Your task to perform on an android device: Open internet settings Image 0: 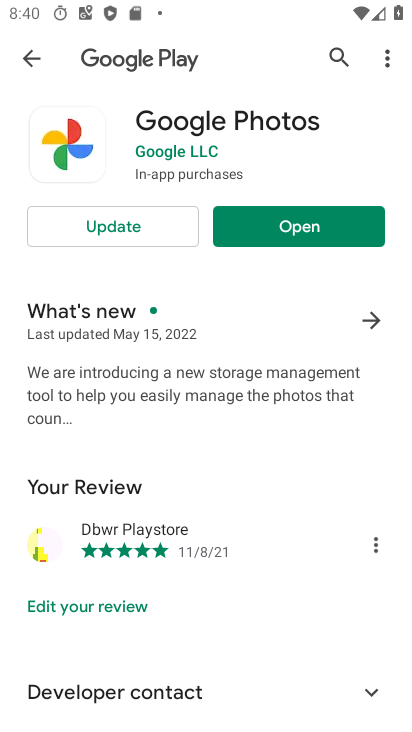
Step 0: press back button
Your task to perform on an android device: Open internet settings Image 1: 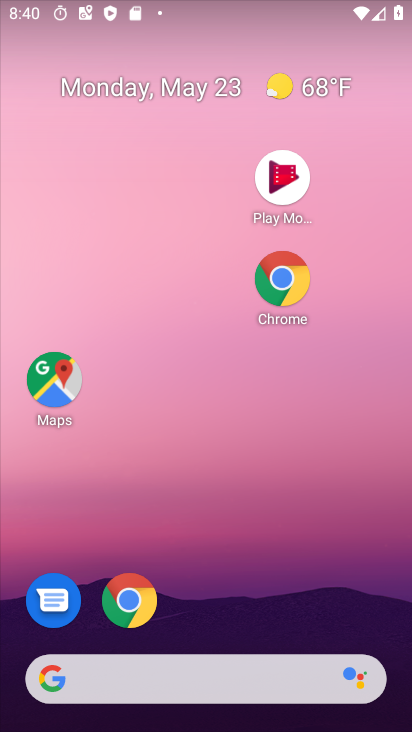
Step 1: drag from (336, 653) to (271, 118)
Your task to perform on an android device: Open internet settings Image 2: 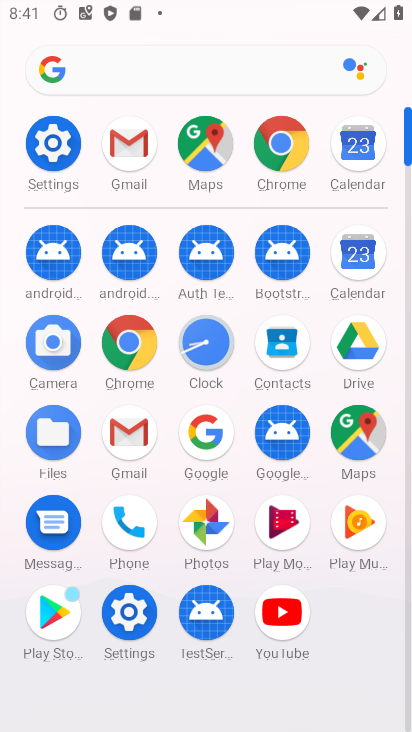
Step 2: click (278, 139)
Your task to perform on an android device: Open internet settings Image 3: 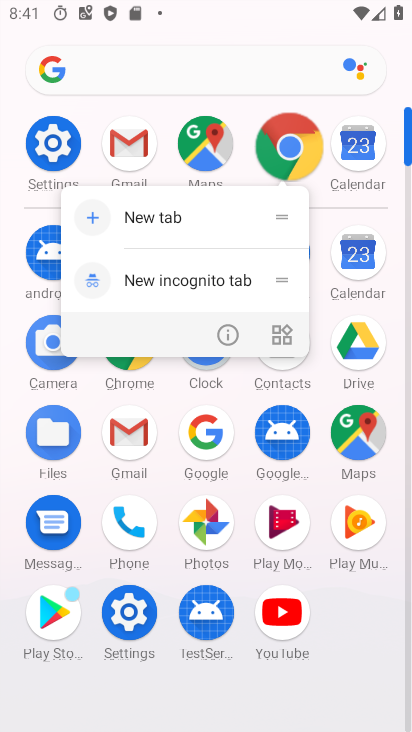
Step 3: click (285, 143)
Your task to perform on an android device: Open internet settings Image 4: 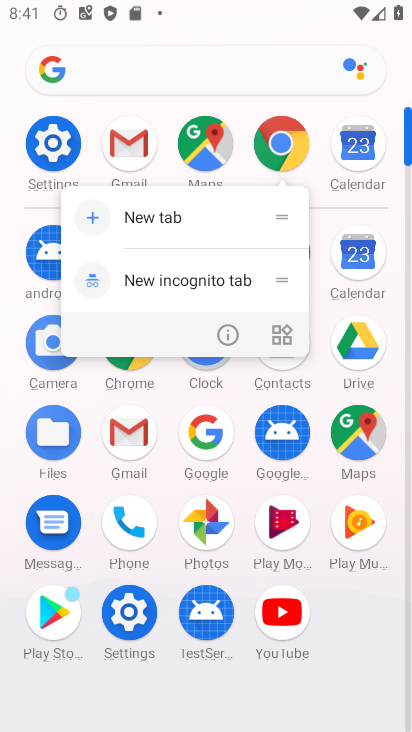
Step 4: click (285, 144)
Your task to perform on an android device: Open internet settings Image 5: 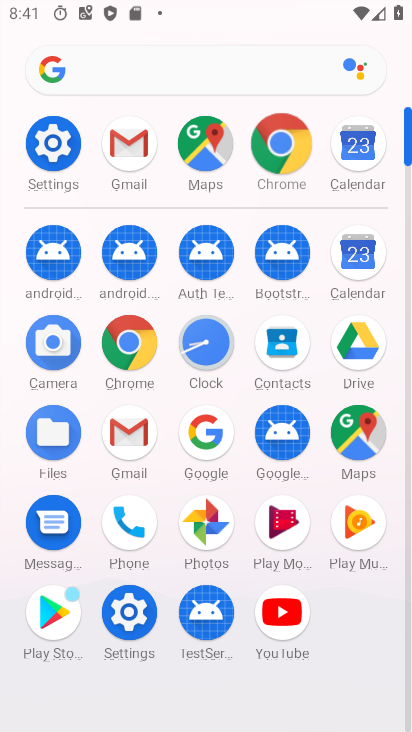
Step 5: click (285, 144)
Your task to perform on an android device: Open internet settings Image 6: 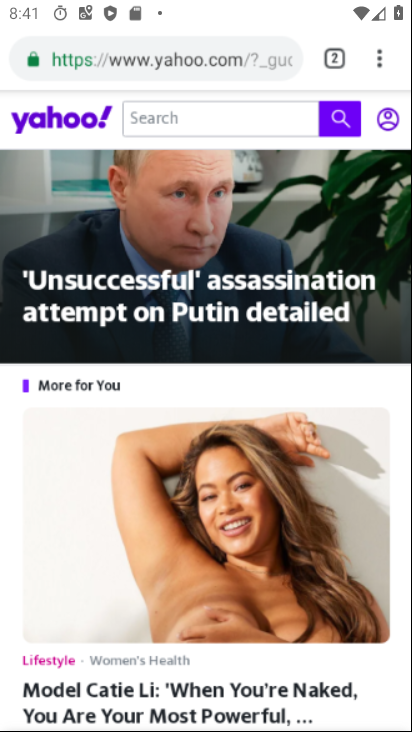
Step 6: click (292, 151)
Your task to perform on an android device: Open internet settings Image 7: 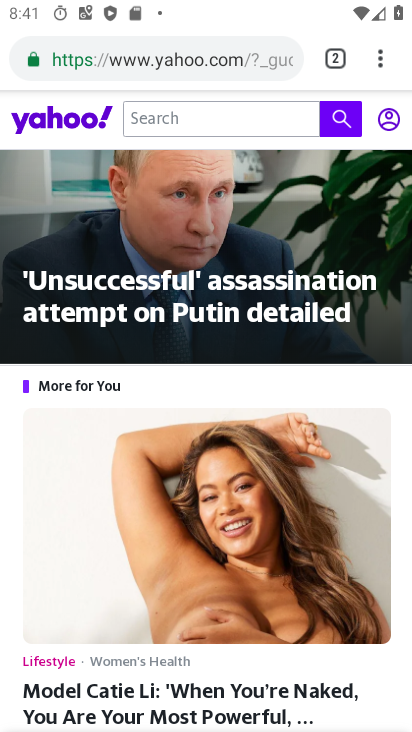
Step 7: click (384, 51)
Your task to perform on an android device: Open internet settings Image 8: 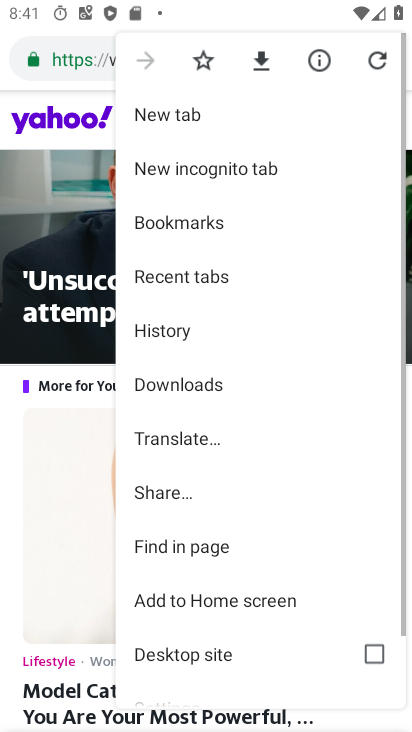
Step 8: drag from (378, 64) to (273, 328)
Your task to perform on an android device: Open internet settings Image 9: 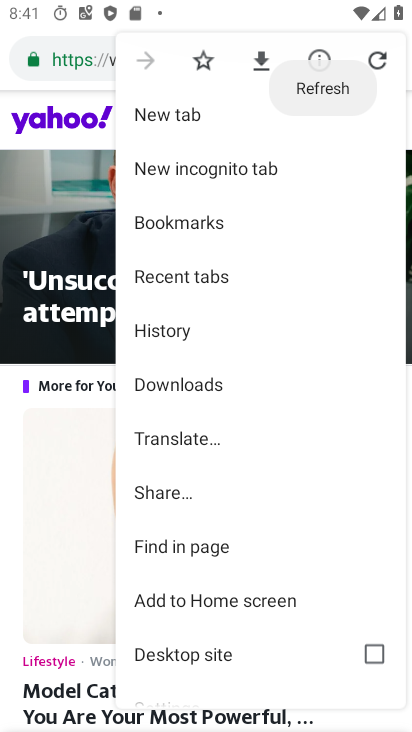
Step 9: press home button
Your task to perform on an android device: Open internet settings Image 10: 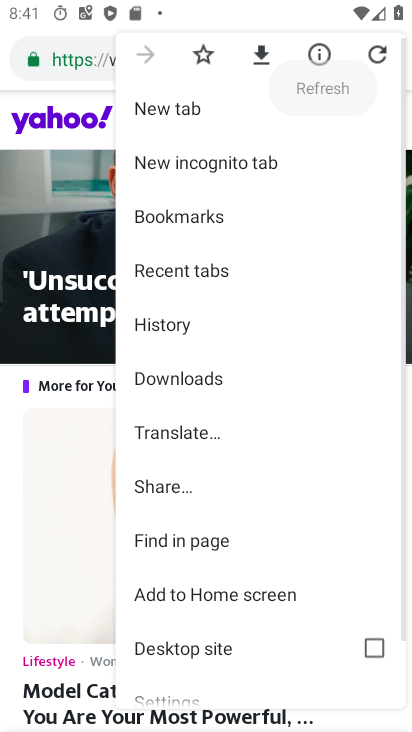
Step 10: press home button
Your task to perform on an android device: Open internet settings Image 11: 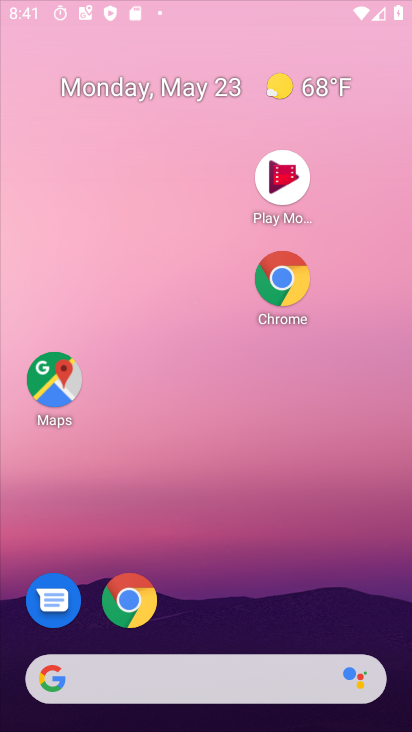
Step 11: press home button
Your task to perform on an android device: Open internet settings Image 12: 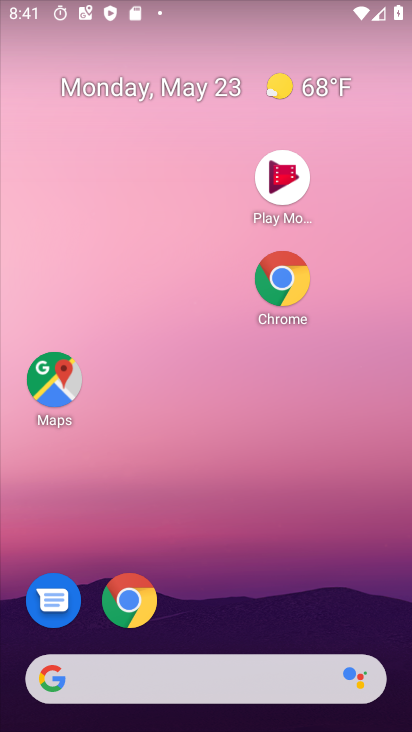
Step 12: press home button
Your task to perform on an android device: Open internet settings Image 13: 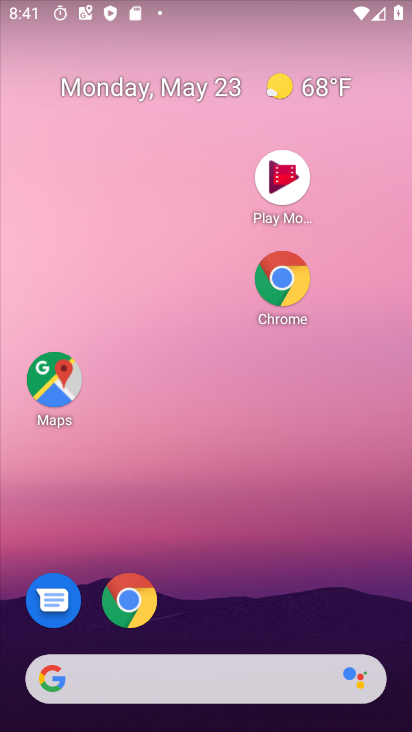
Step 13: drag from (330, 285) to (387, 532)
Your task to perform on an android device: Open internet settings Image 14: 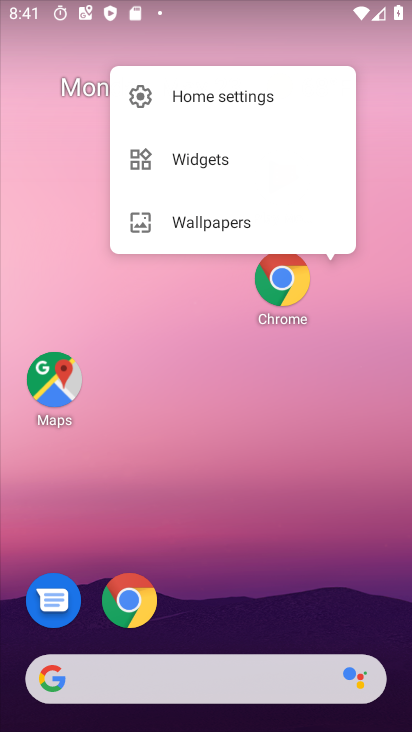
Step 14: drag from (290, 698) to (221, 443)
Your task to perform on an android device: Open internet settings Image 15: 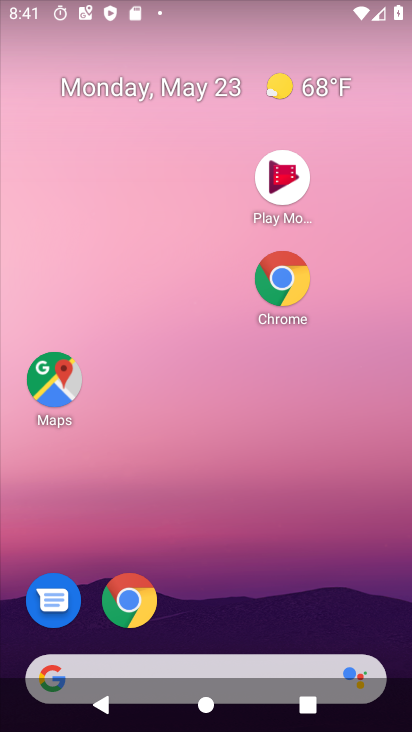
Step 15: drag from (274, 606) to (192, 220)
Your task to perform on an android device: Open internet settings Image 16: 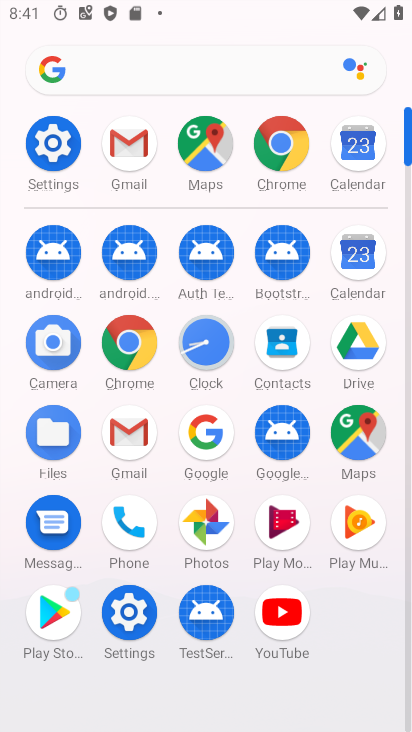
Step 16: click (55, 149)
Your task to perform on an android device: Open internet settings Image 17: 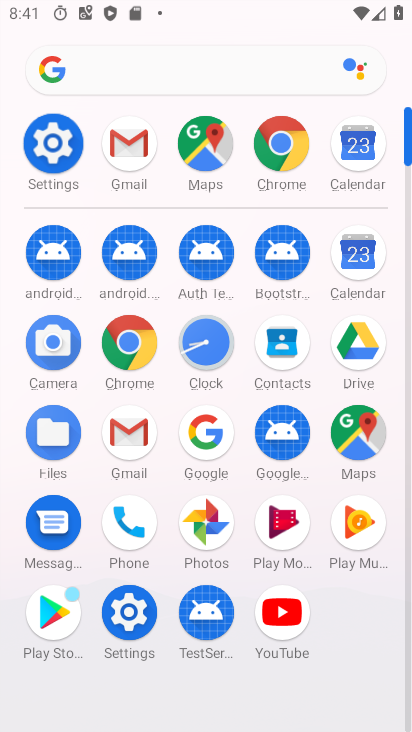
Step 17: click (63, 144)
Your task to perform on an android device: Open internet settings Image 18: 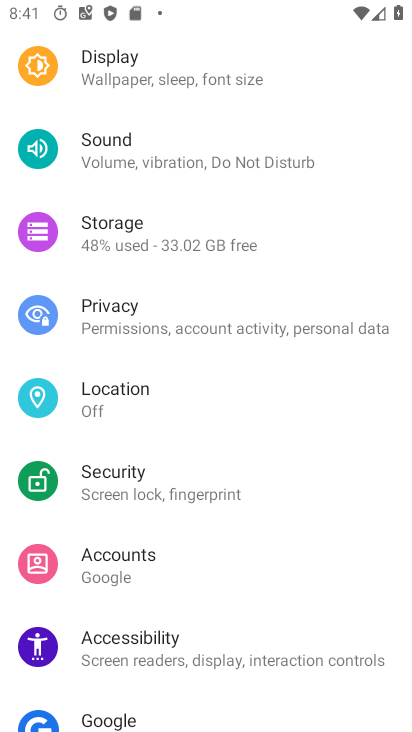
Step 18: drag from (128, 95) to (248, 420)
Your task to perform on an android device: Open internet settings Image 19: 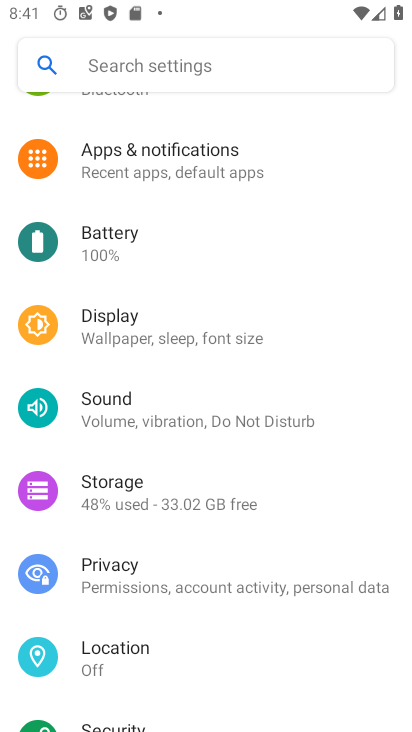
Step 19: drag from (176, 273) to (186, 451)
Your task to perform on an android device: Open internet settings Image 20: 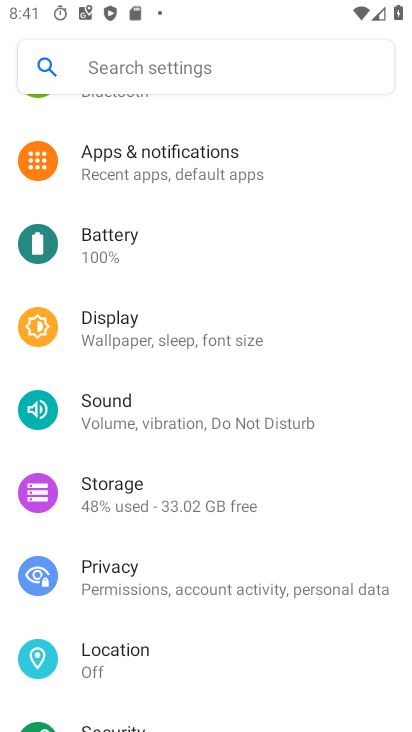
Step 20: drag from (243, 293) to (270, 453)
Your task to perform on an android device: Open internet settings Image 21: 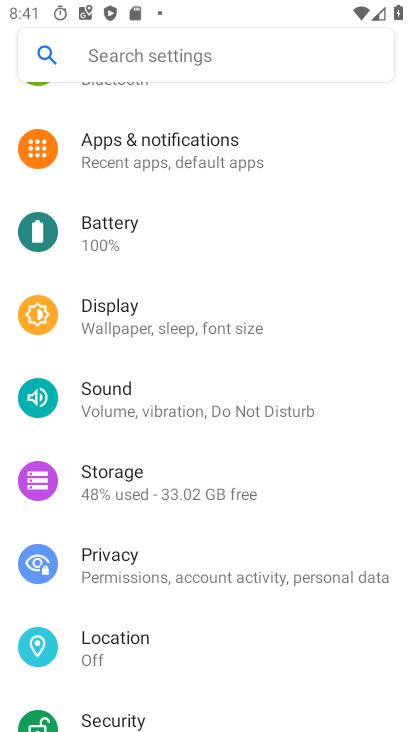
Step 21: drag from (147, 150) to (161, 418)
Your task to perform on an android device: Open internet settings Image 22: 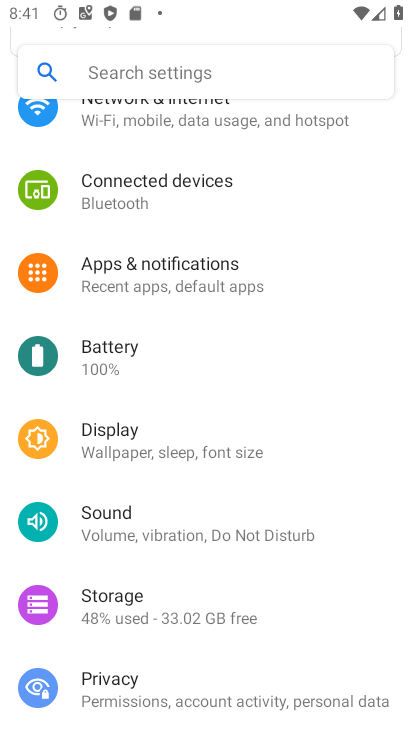
Step 22: click (182, 109)
Your task to perform on an android device: Open internet settings Image 23: 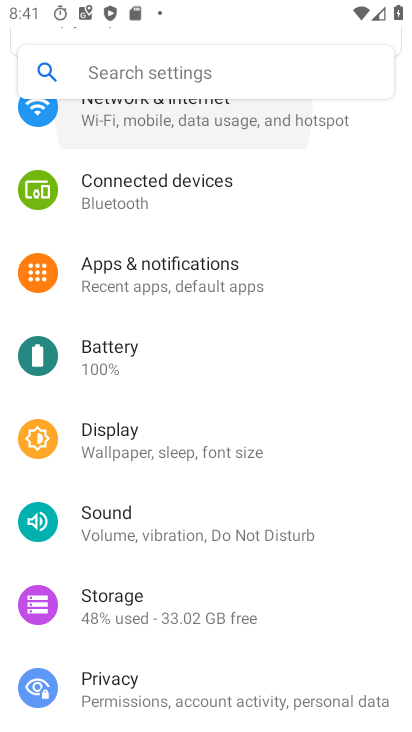
Step 23: click (184, 109)
Your task to perform on an android device: Open internet settings Image 24: 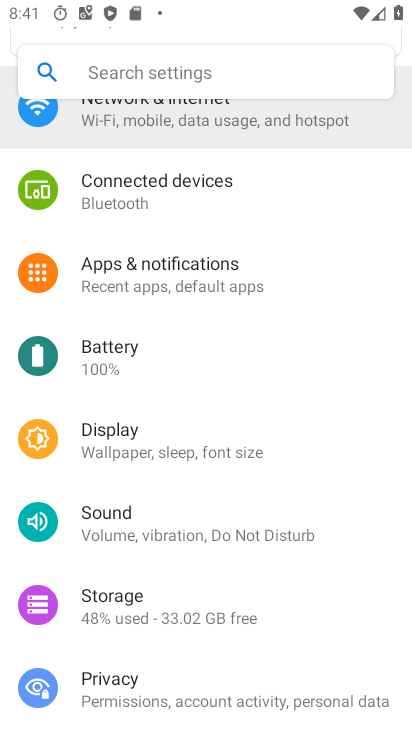
Step 24: click (184, 109)
Your task to perform on an android device: Open internet settings Image 25: 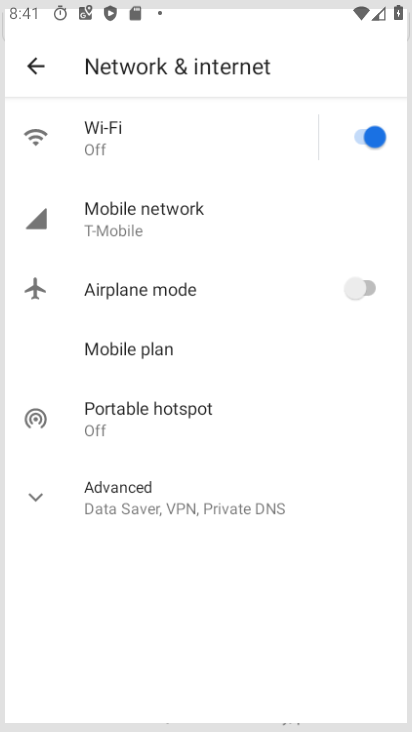
Step 25: click (191, 113)
Your task to perform on an android device: Open internet settings Image 26: 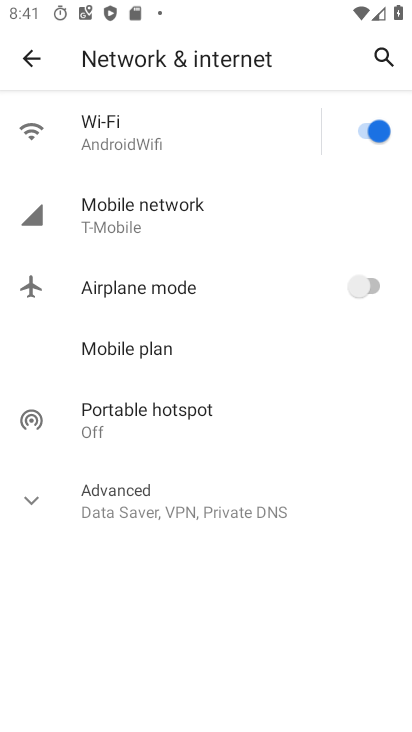
Step 26: click (195, 116)
Your task to perform on an android device: Open internet settings Image 27: 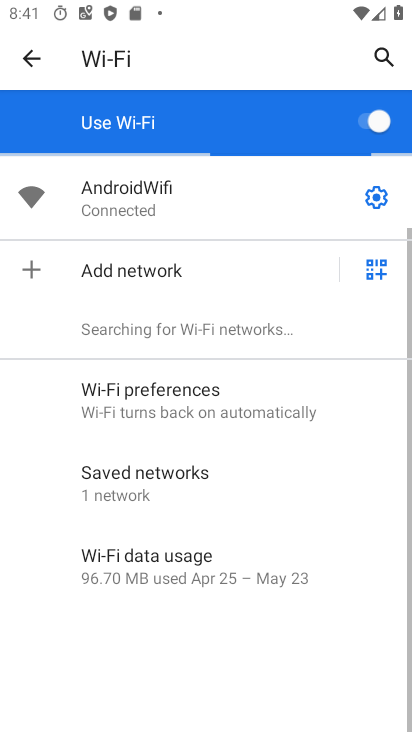
Step 27: click (33, 50)
Your task to perform on an android device: Open internet settings Image 28: 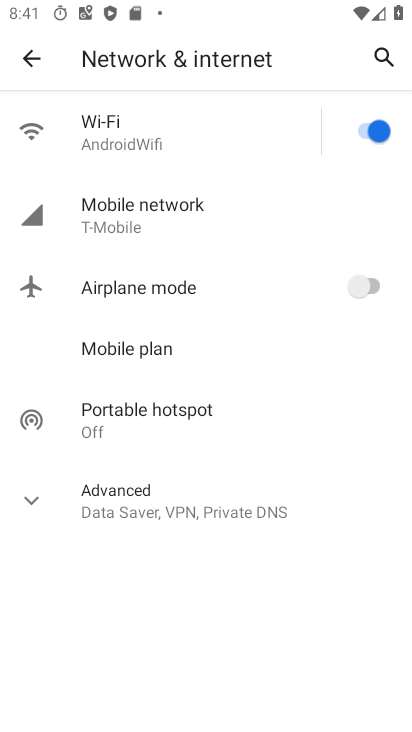
Step 28: task complete